Your task to perform on an android device: check the backup settings in the google photos Image 0: 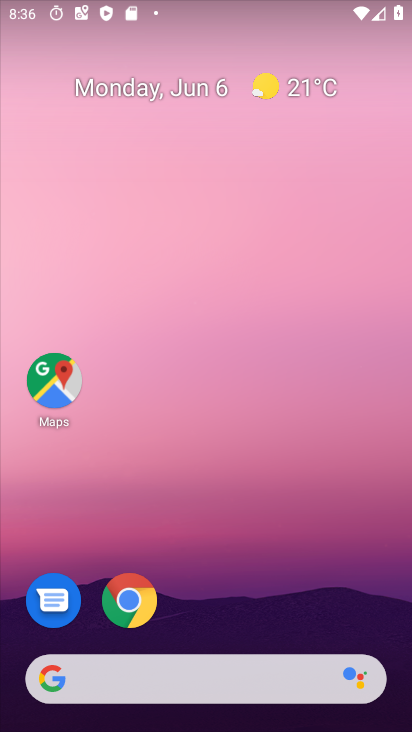
Step 0: drag from (212, 534) to (162, 36)
Your task to perform on an android device: check the backup settings in the google photos Image 1: 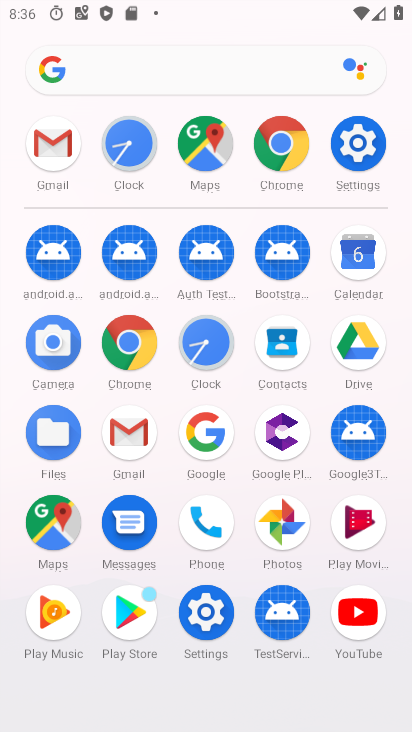
Step 1: click (280, 516)
Your task to perform on an android device: check the backup settings in the google photos Image 2: 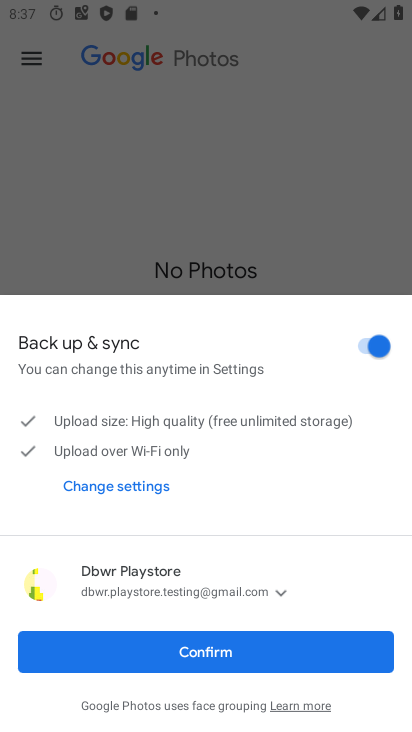
Step 2: click (210, 655)
Your task to perform on an android device: check the backup settings in the google photos Image 3: 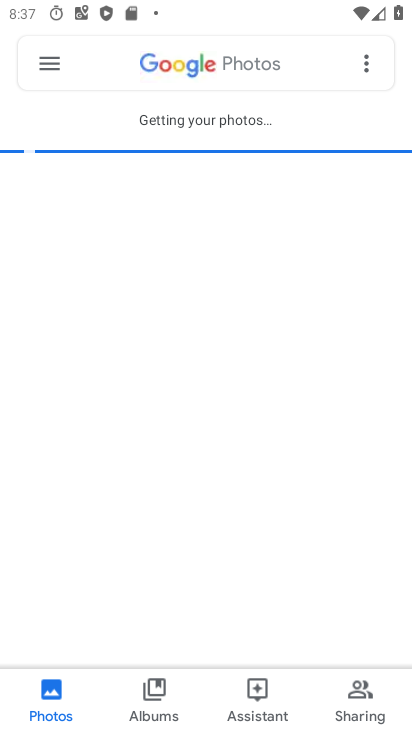
Step 3: click (25, 51)
Your task to perform on an android device: check the backup settings in the google photos Image 4: 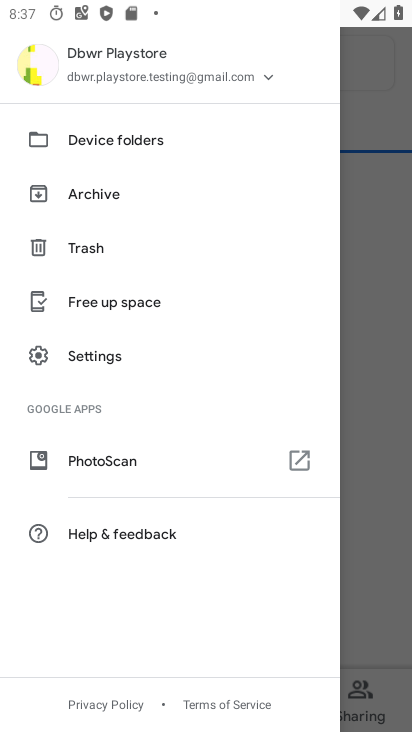
Step 4: click (126, 341)
Your task to perform on an android device: check the backup settings in the google photos Image 5: 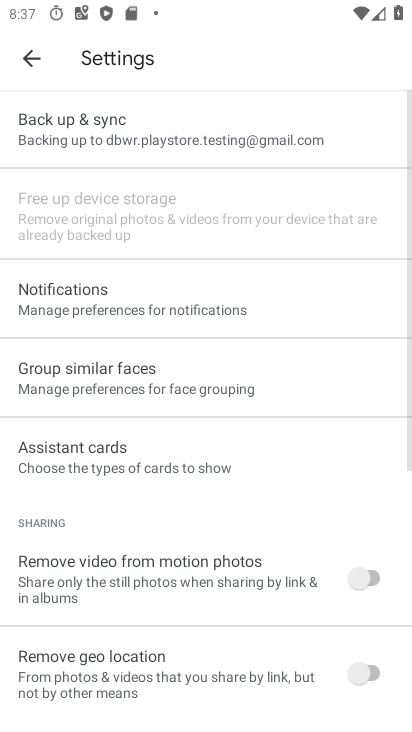
Step 5: click (166, 121)
Your task to perform on an android device: check the backup settings in the google photos Image 6: 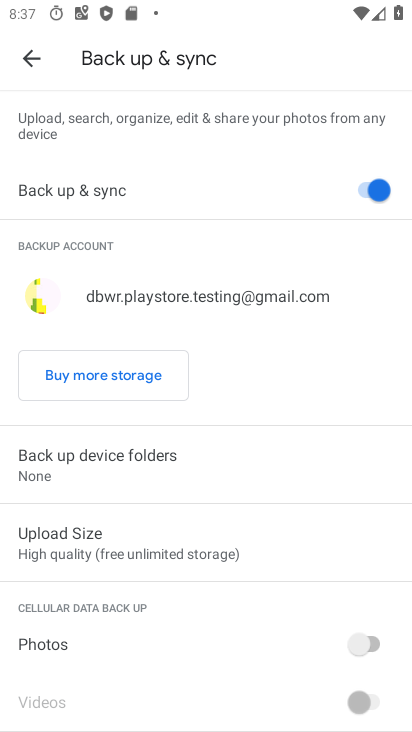
Step 6: task complete